Your task to perform on an android device: turn off smart reply in the gmail app Image 0: 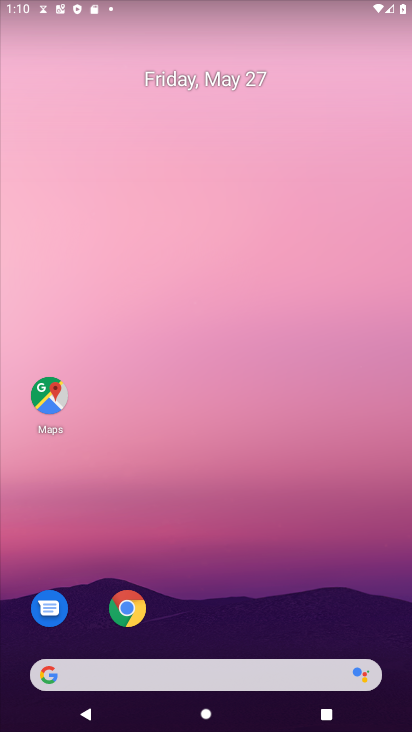
Step 0: drag from (223, 471) to (261, 126)
Your task to perform on an android device: turn off smart reply in the gmail app Image 1: 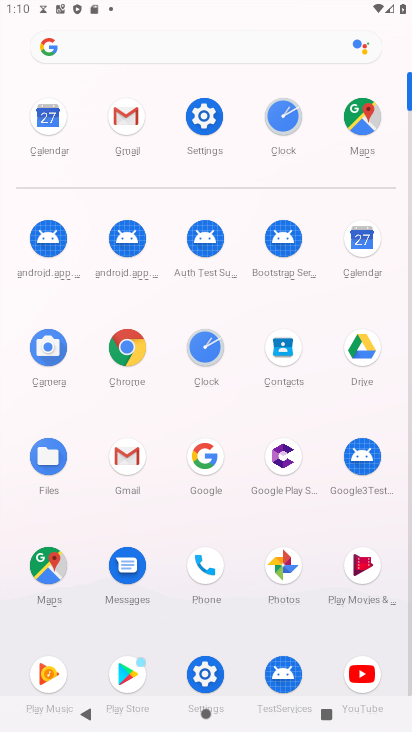
Step 1: click (114, 110)
Your task to perform on an android device: turn off smart reply in the gmail app Image 2: 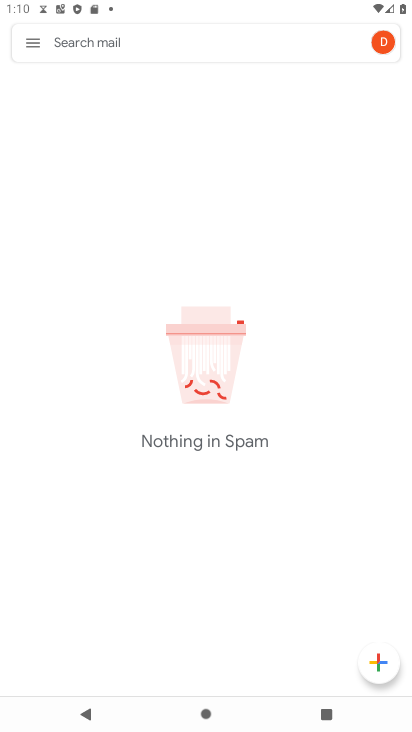
Step 2: click (33, 42)
Your task to perform on an android device: turn off smart reply in the gmail app Image 3: 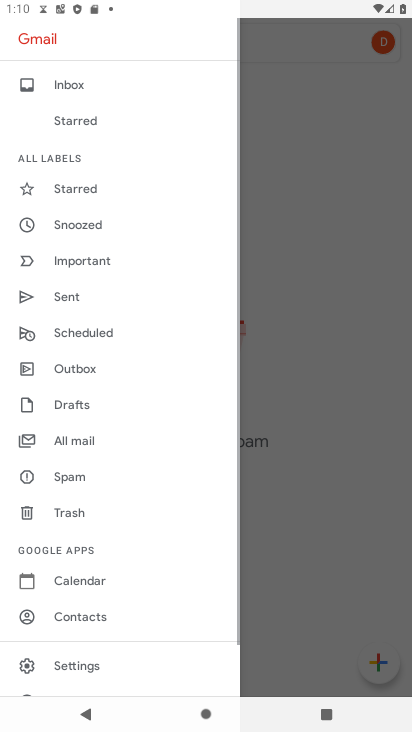
Step 3: click (83, 677)
Your task to perform on an android device: turn off smart reply in the gmail app Image 4: 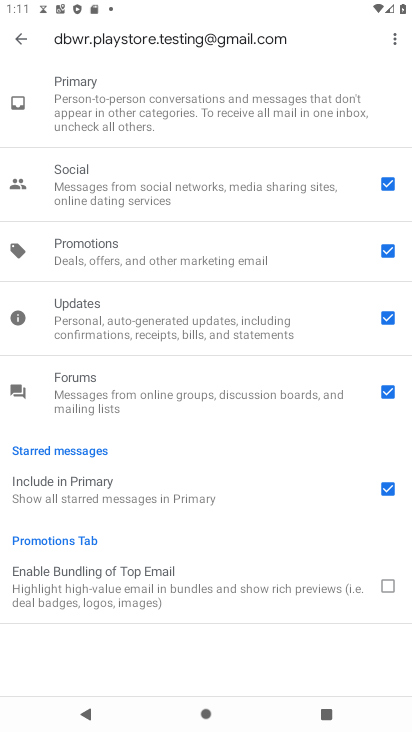
Step 4: drag from (198, 228) to (285, 102)
Your task to perform on an android device: turn off smart reply in the gmail app Image 5: 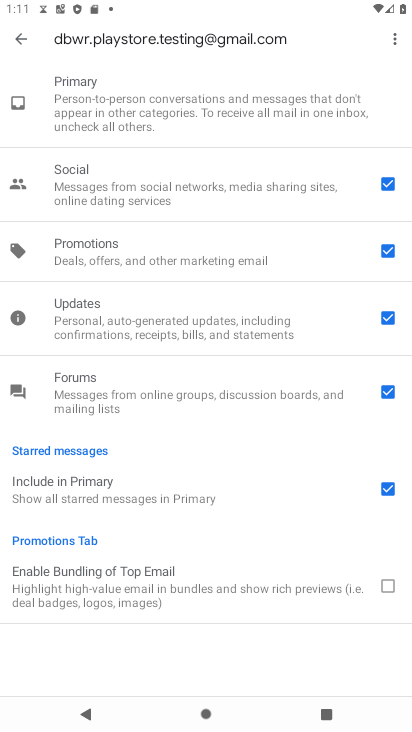
Step 5: drag from (234, 164) to (153, 681)
Your task to perform on an android device: turn off smart reply in the gmail app Image 6: 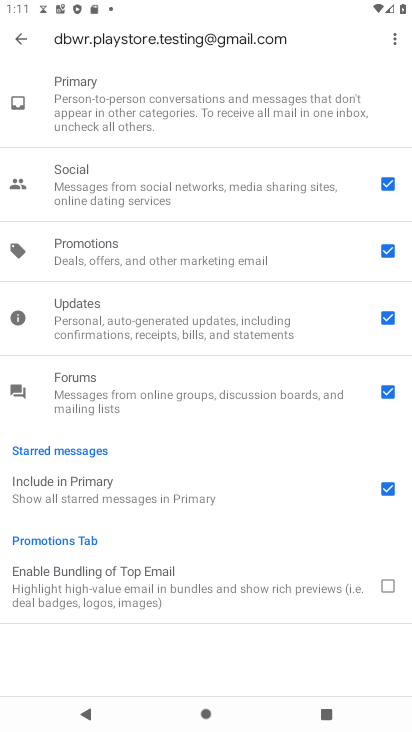
Step 6: drag from (153, 579) to (246, 32)
Your task to perform on an android device: turn off smart reply in the gmail app Image 7: 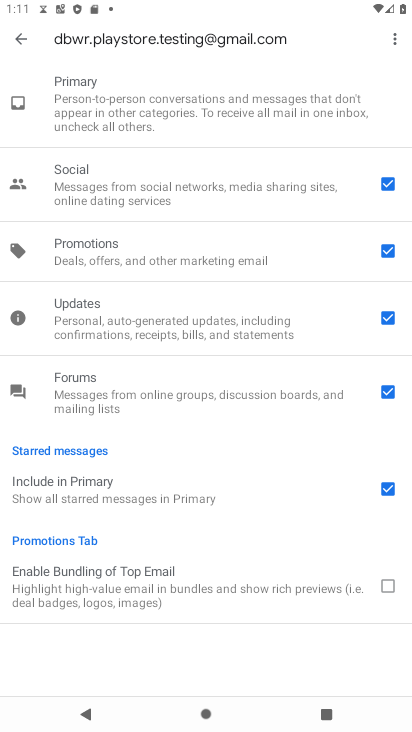
Step 7: click (12, 29)
Your task to perform on an android device: turn off smart reply in the gmail app Image 8: 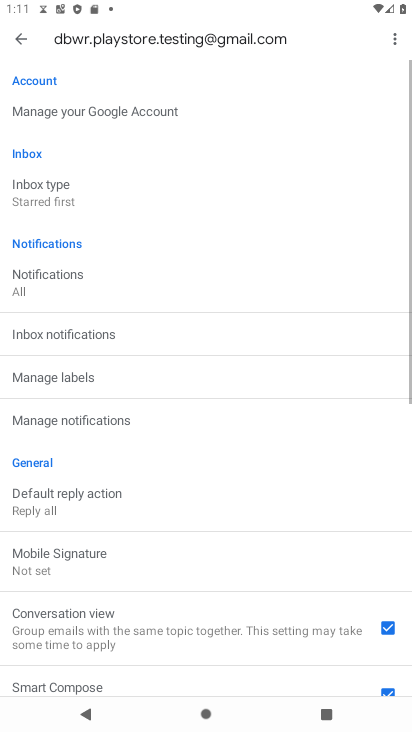
Step 8: drag from (170, 579) to (311, 64)
Your task to perform on an android device: turn off smart reply in the gmail app Image 9: 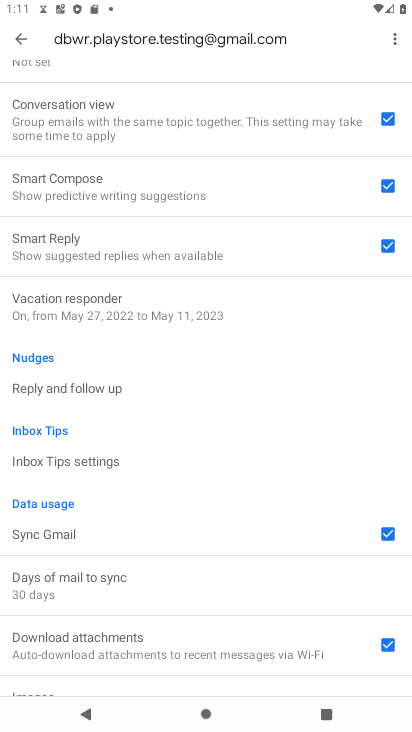
Step 9: click (389, 244)
Your task to perform on an android device: turn off smart reply in the gmail app Image 10: 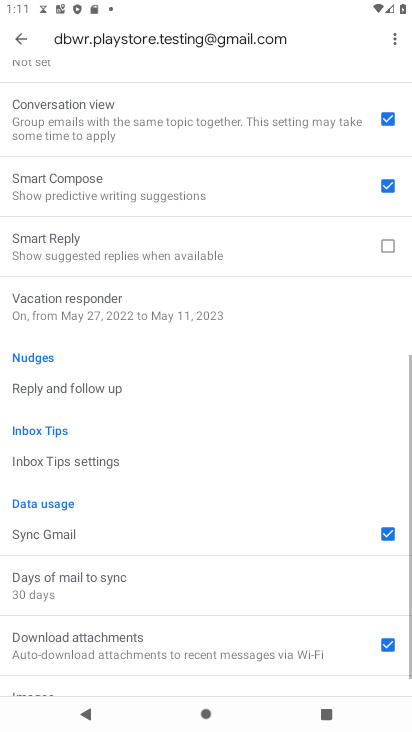
Step 10: task complete